Your task to perform on an android device: empty trash in the gmail app Image 0: 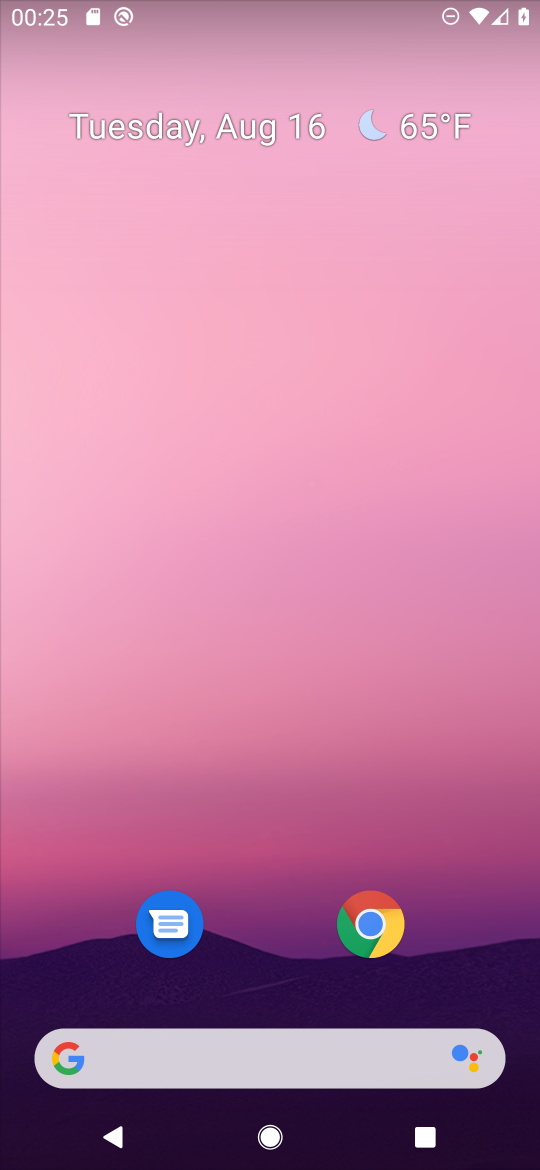
Step 0: drag from (473, 909) to (438, 13)
Your task to perform on an android device: empty trash in the gmail app Image 1: 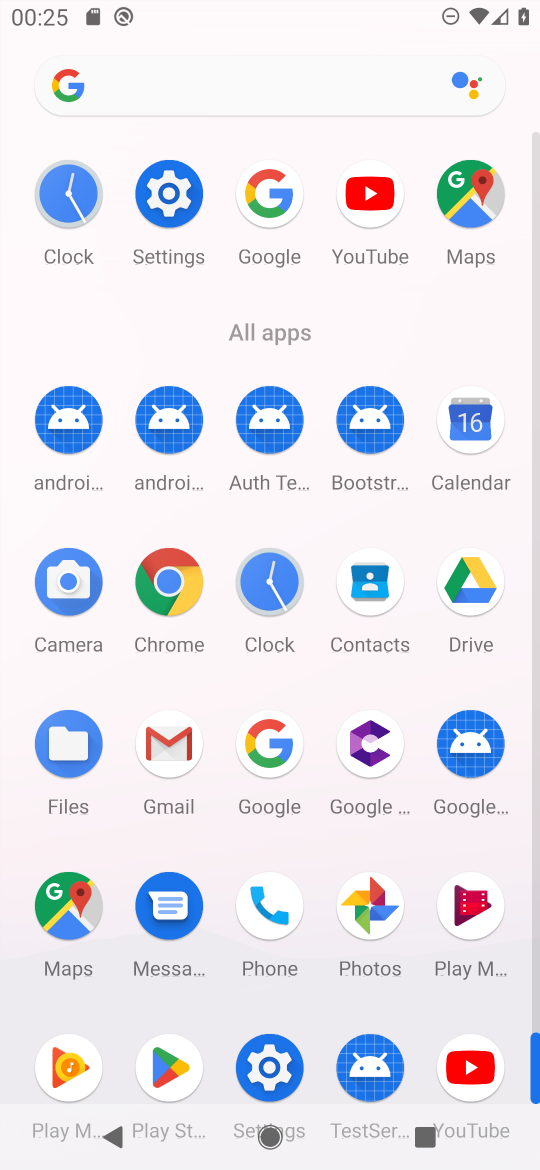
Step 1: click (179, 747)
Your task to perform on an android device: empty trash in the gmail app Image 2: 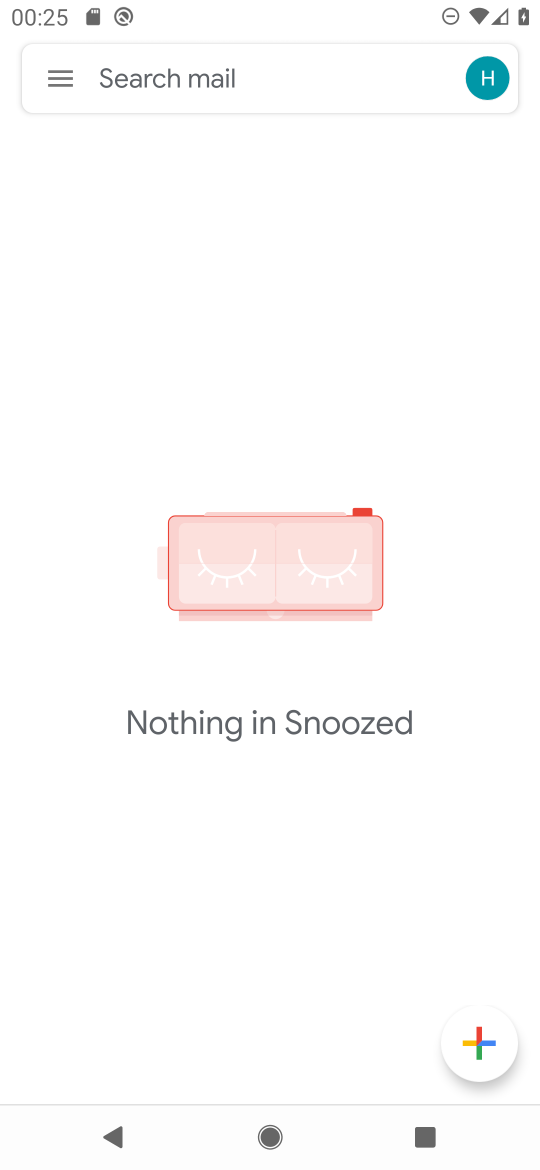
Step 2: click (64, 74)
Your task to perform on an android device: empty trash in the gmail app Image 3: 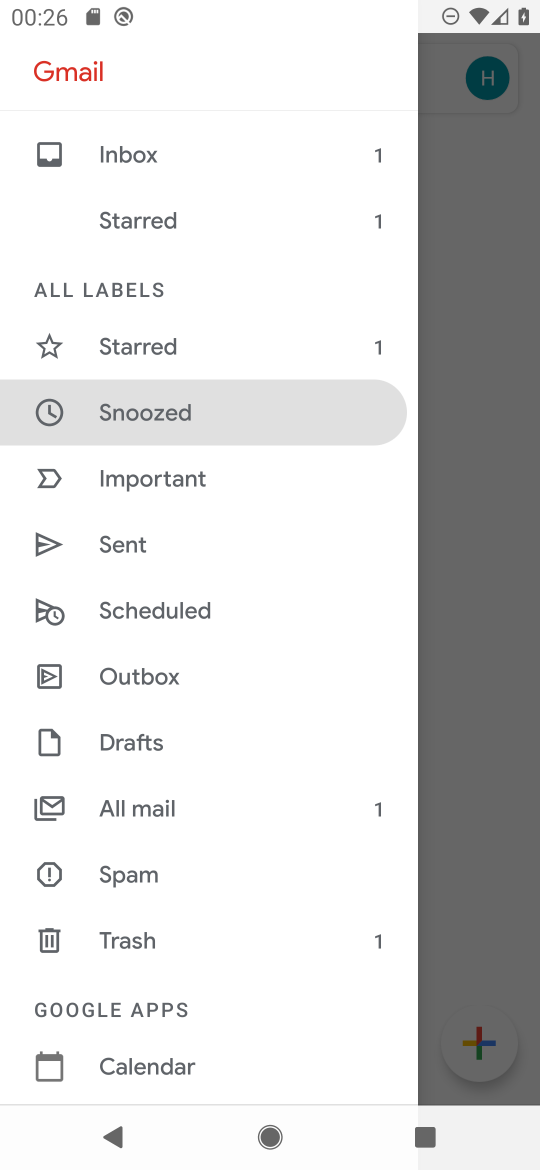
Step 3: click (167, 947)
Your task to perform on an android device: empty trash in the gmail app Image 4: 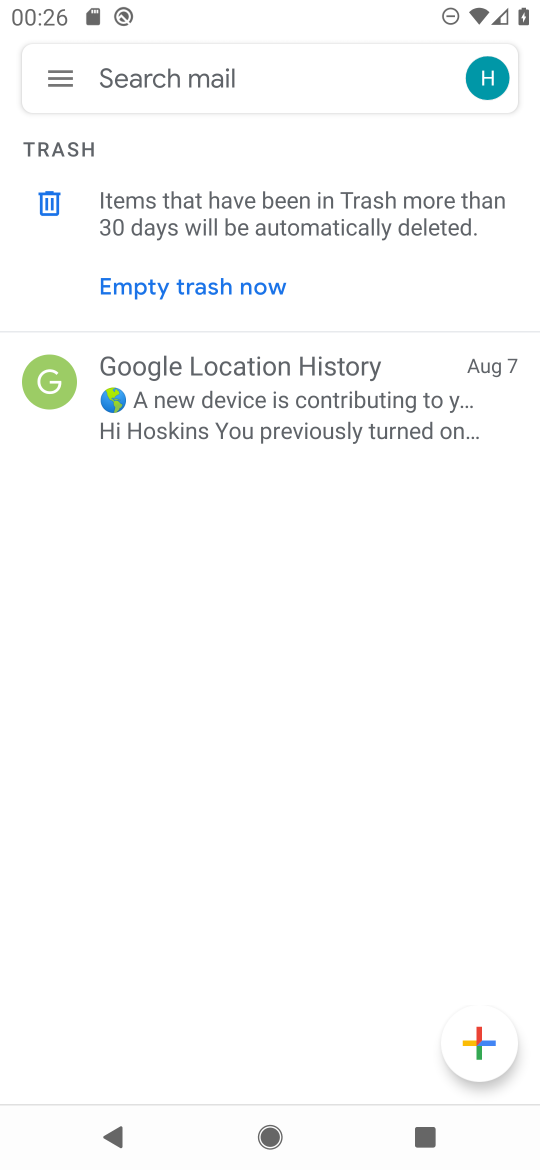
Step 4: click (172, 296)
Your task to perform on an android device: empty trash in the gmail app Image 5: 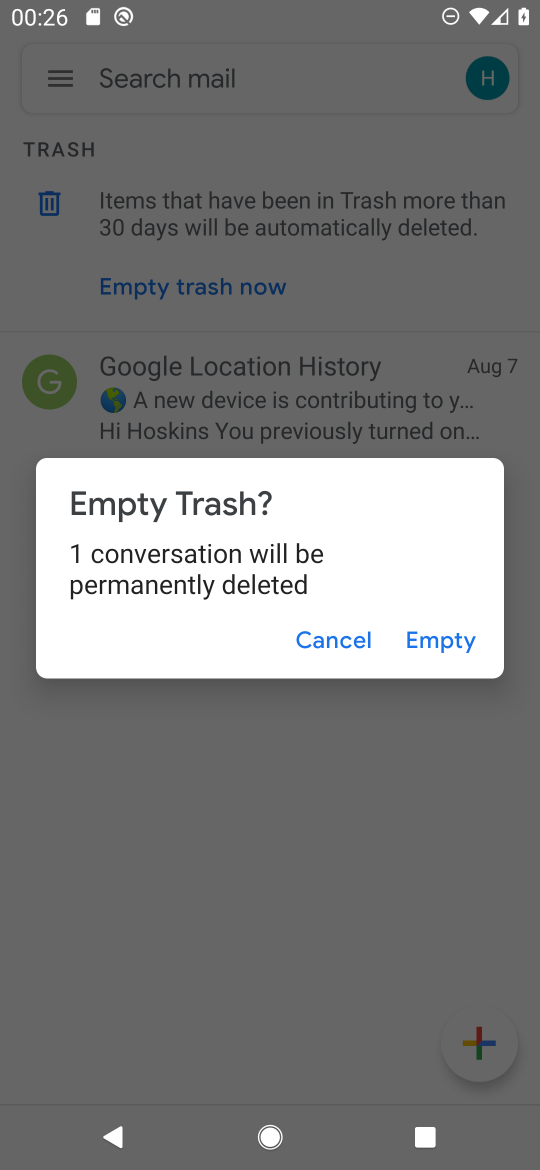
Step 5: click (439, 654)
Your task to perform on an android device: empty trash in the gmail app Image 6: 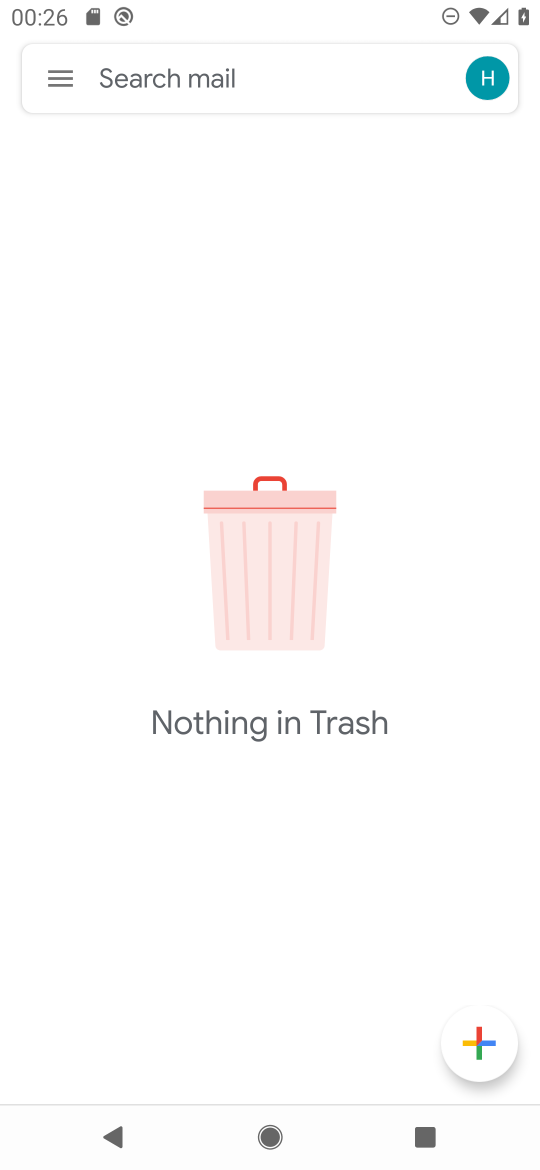
Step 6: task complete